Your task to perform on an android device: open app "Spotify" (install if not already installed) Image 0: 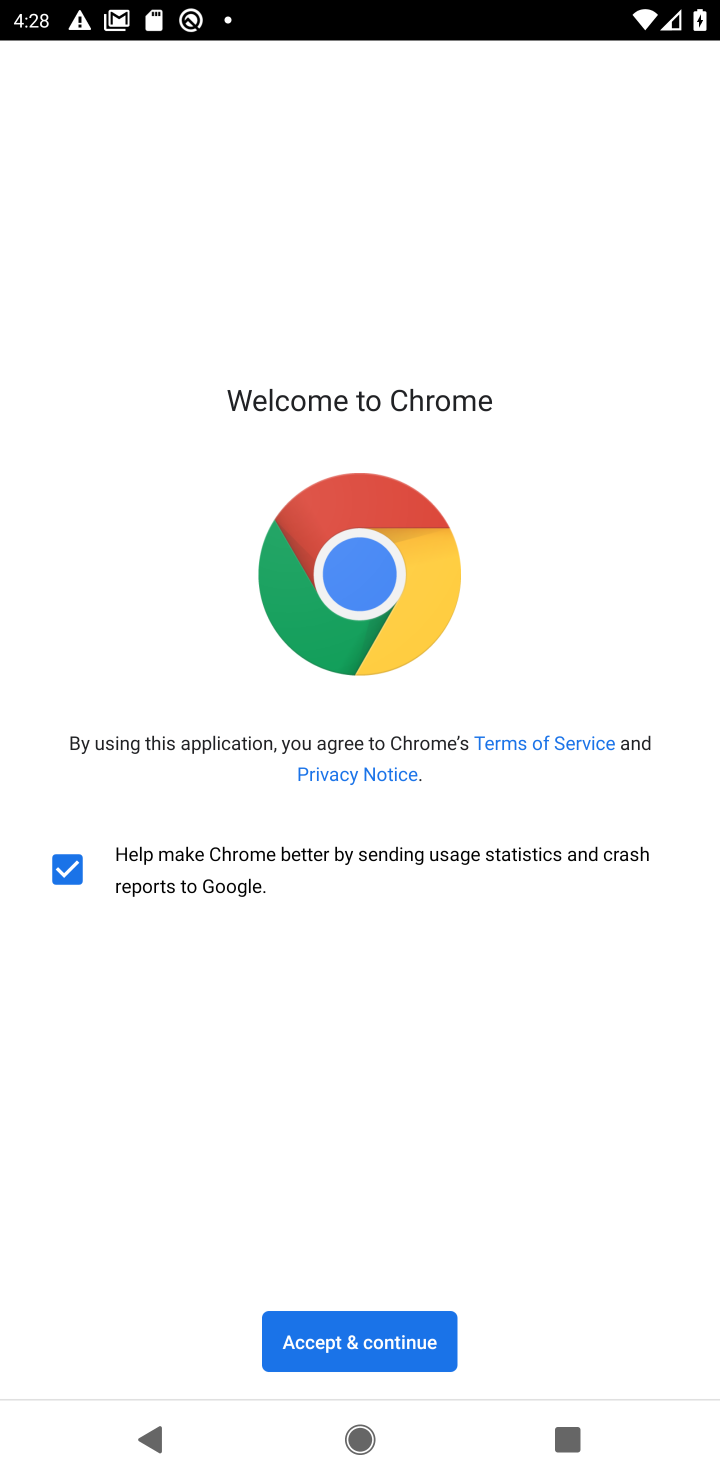
Step 0: press home button
Your task to perform on an android device: open app "Spotify" (install if not already installed) Image 1: 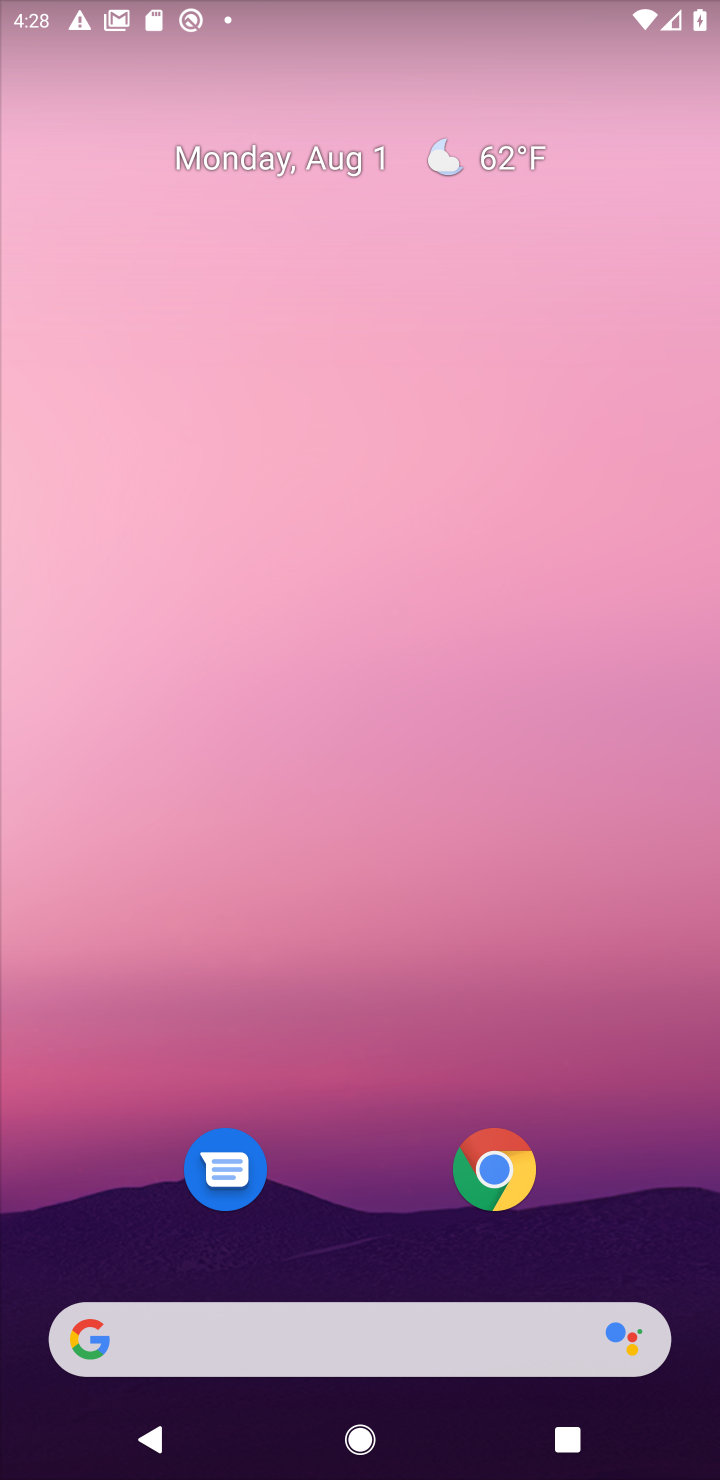
Step 1: drag from (513, 850) to (457, 131)
Your task to perform on an android device: open app "Spotify" (install if not already installed) Image 2: 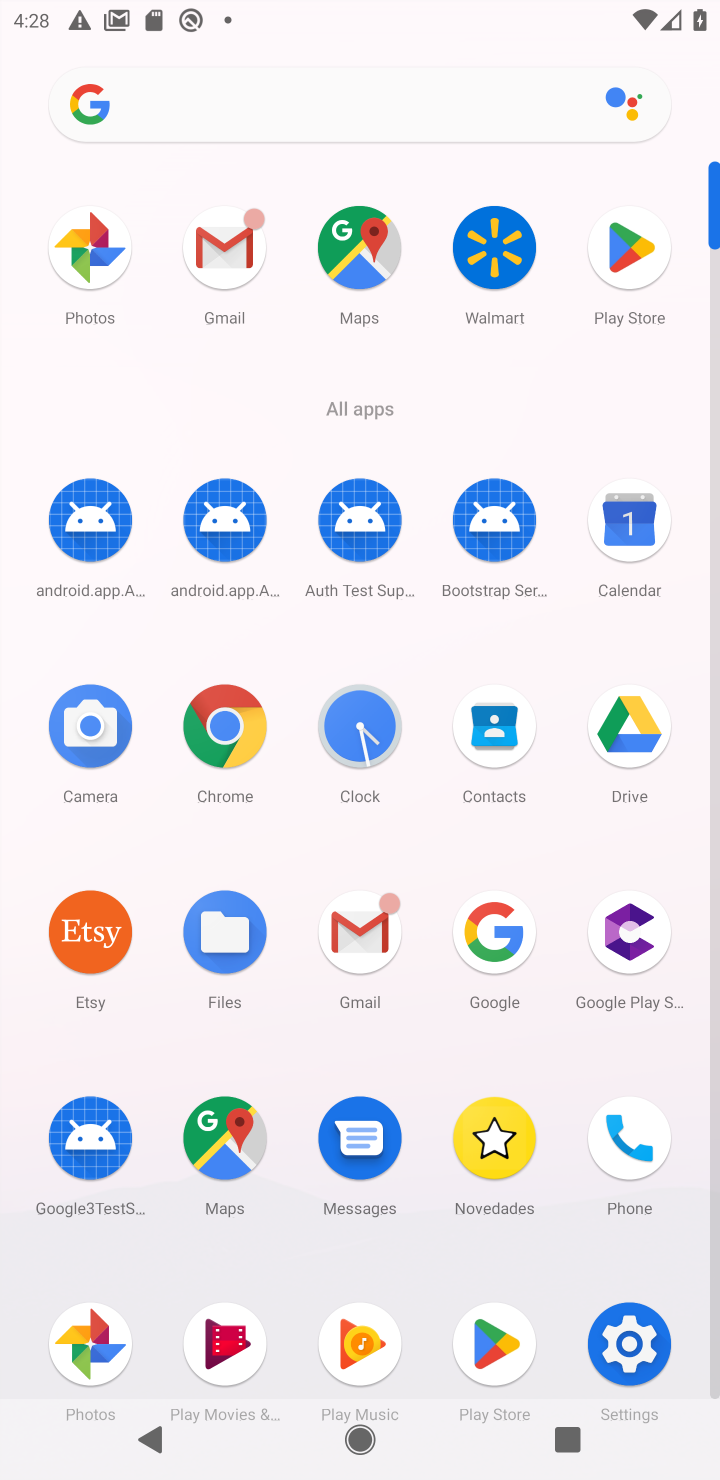
Step 2: click (629, 243)
Your task to perform on an android device: open app "Spotify" (install if not already installed) Image 3: 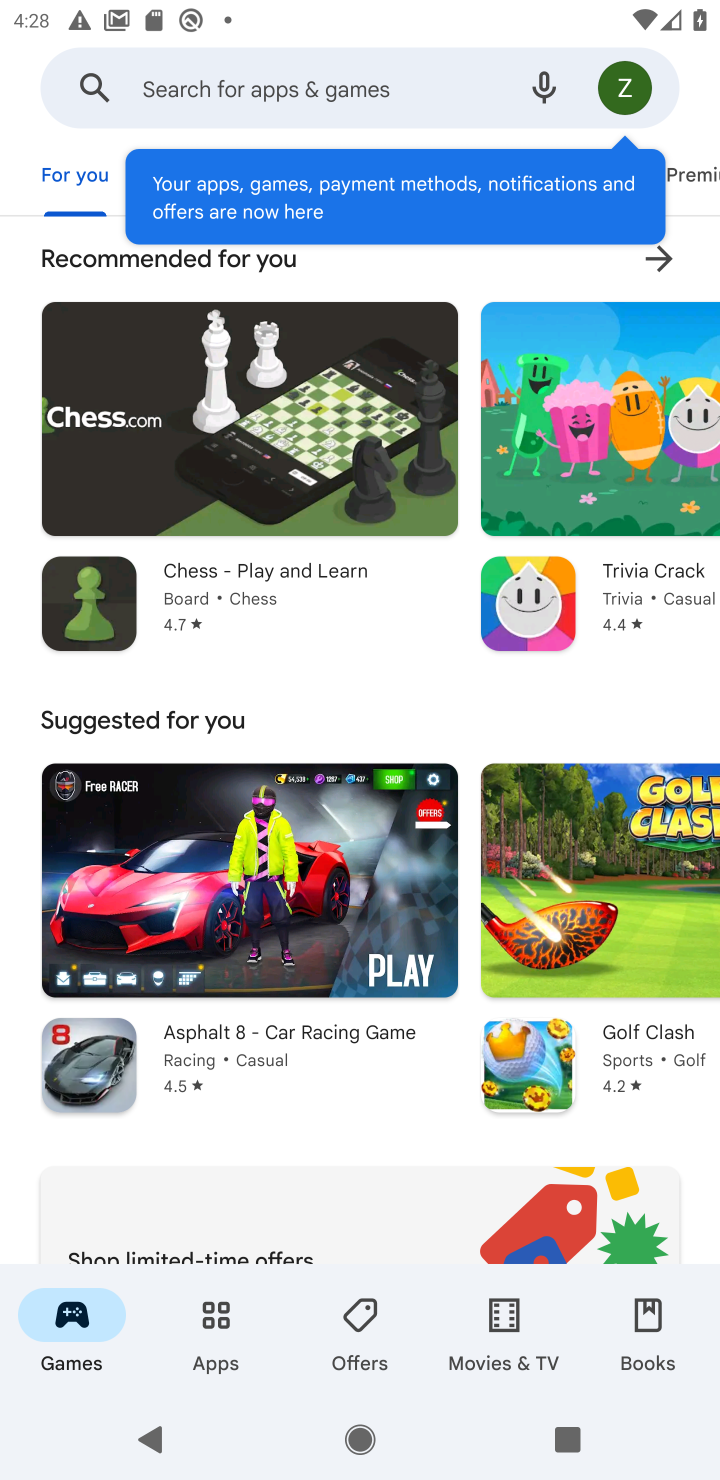
Step 3: click (398, 109)
Your task to perform on an android device: open app "Spotify" (install if not already installed) Image 4: 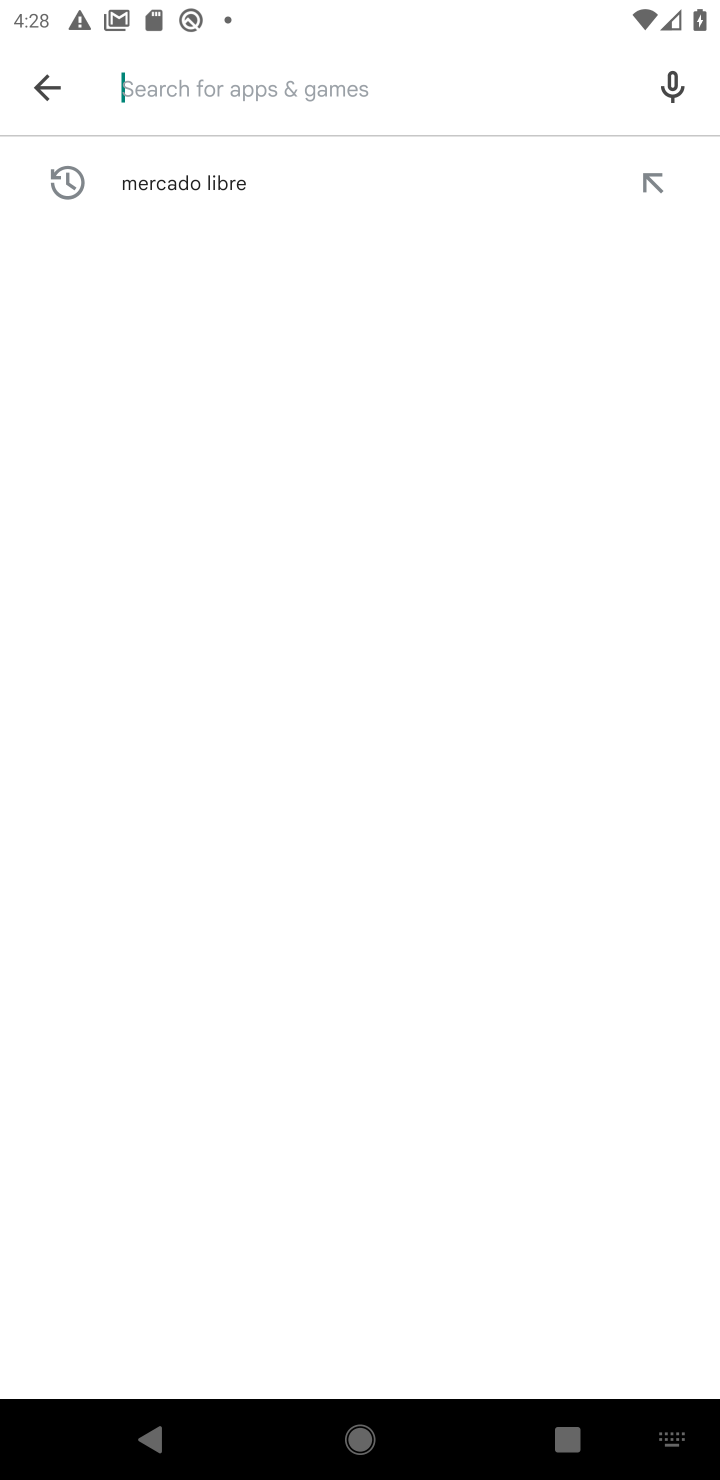
Step 4: type "spotify"
Your task to perform on an android device: open app "Spotify" (install if not already installed) Image 5: 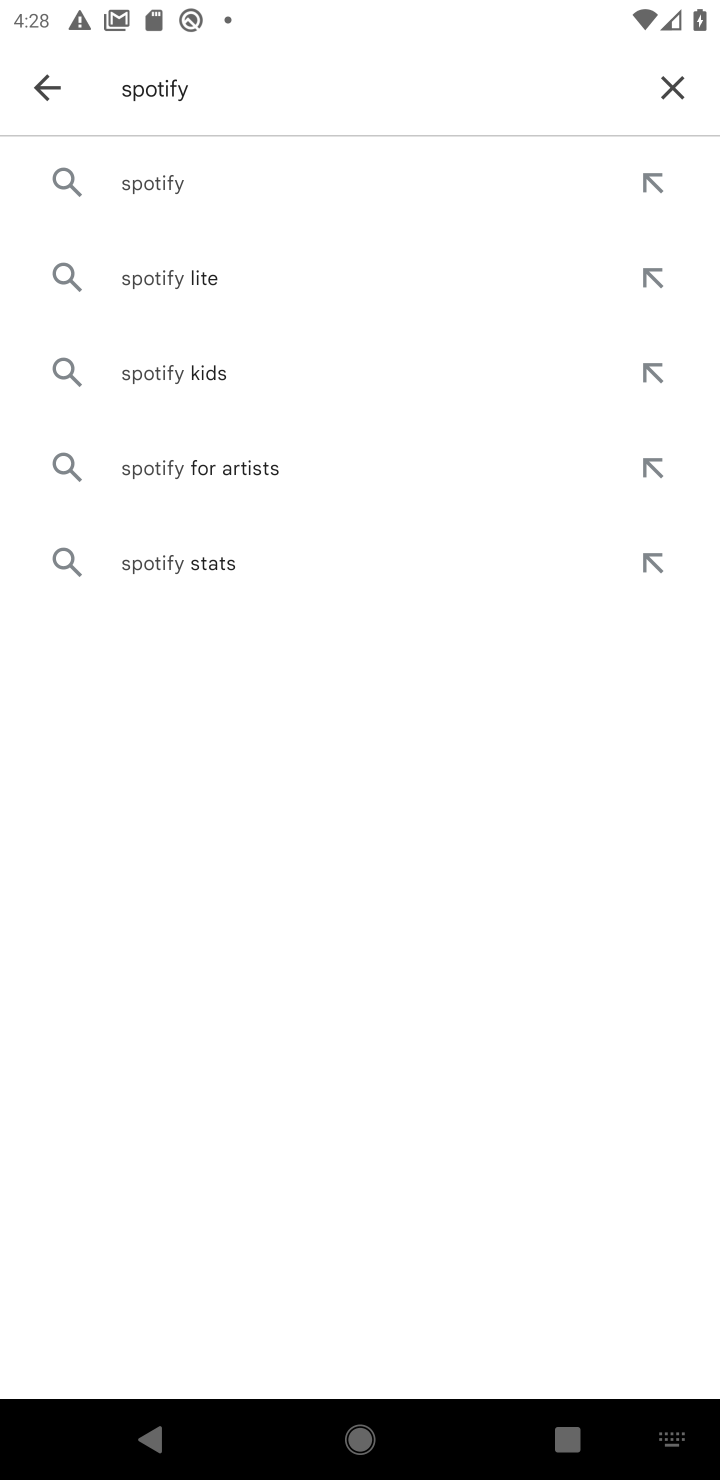
Step 5: click (158, 169)
Your task to perform on an android device: open app "Spotify" (install if not already installed) Image 6: 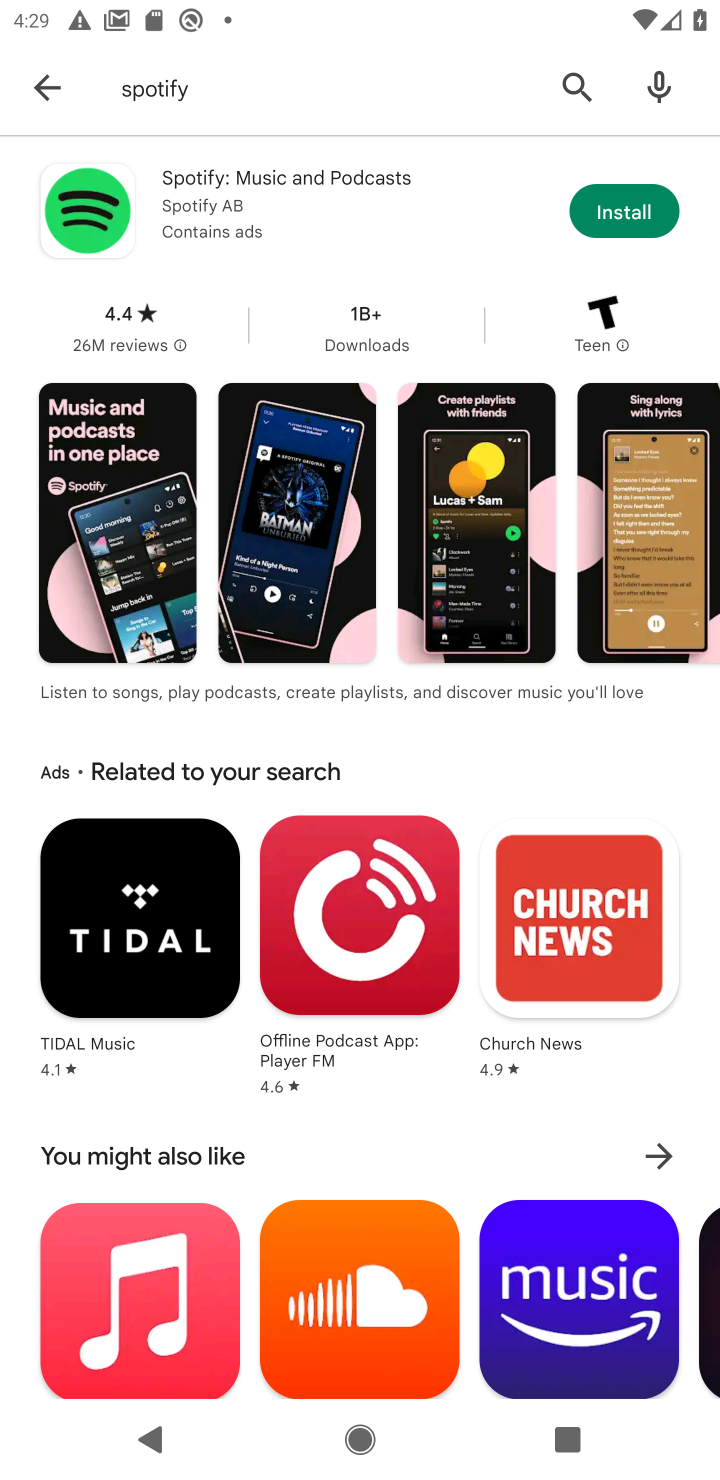
Step 6: click (608, 217)
Your task to perform on an android device: open app "Spotify" (install if not already installed) Image 7: 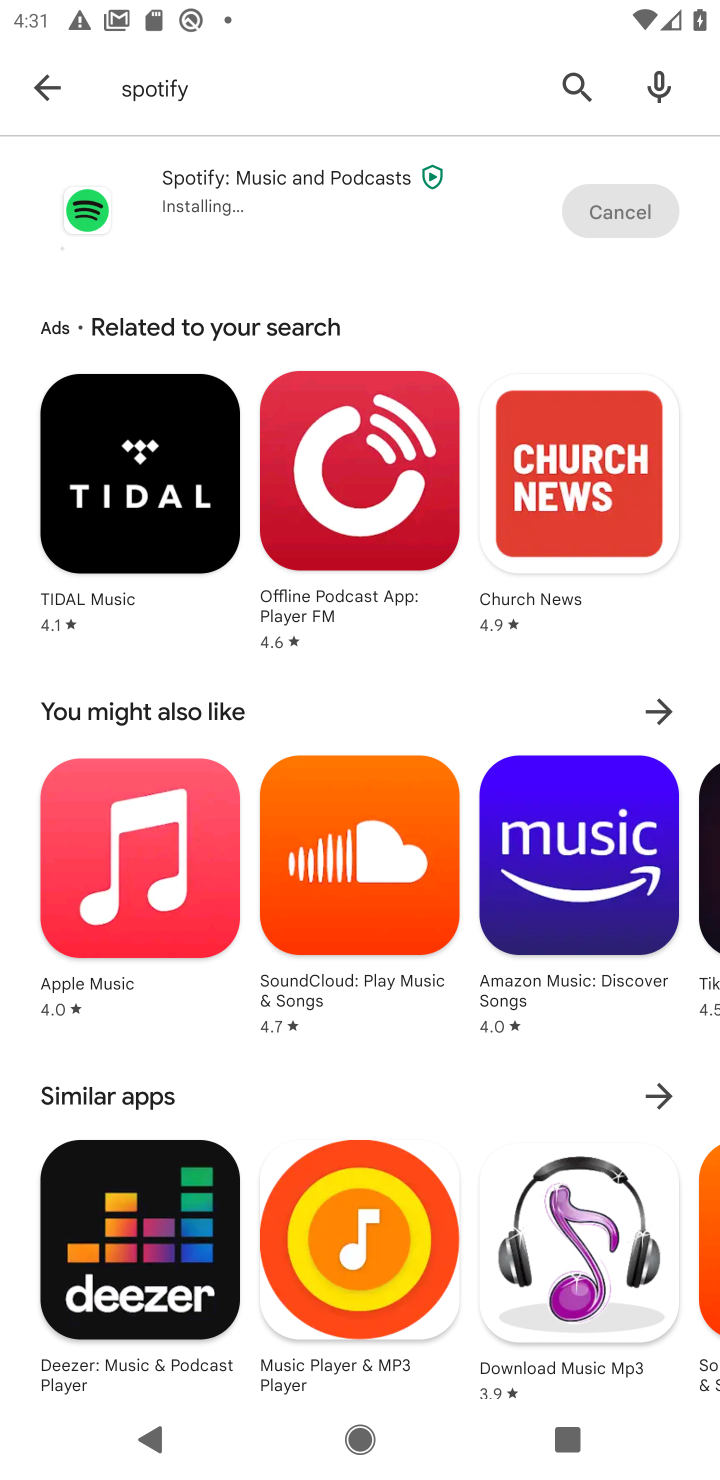
Step 7: drag from (442, 314) to (421, 99)
Your task to perform on an android device: open app "Spotify" (install if not already installed) Image 8: 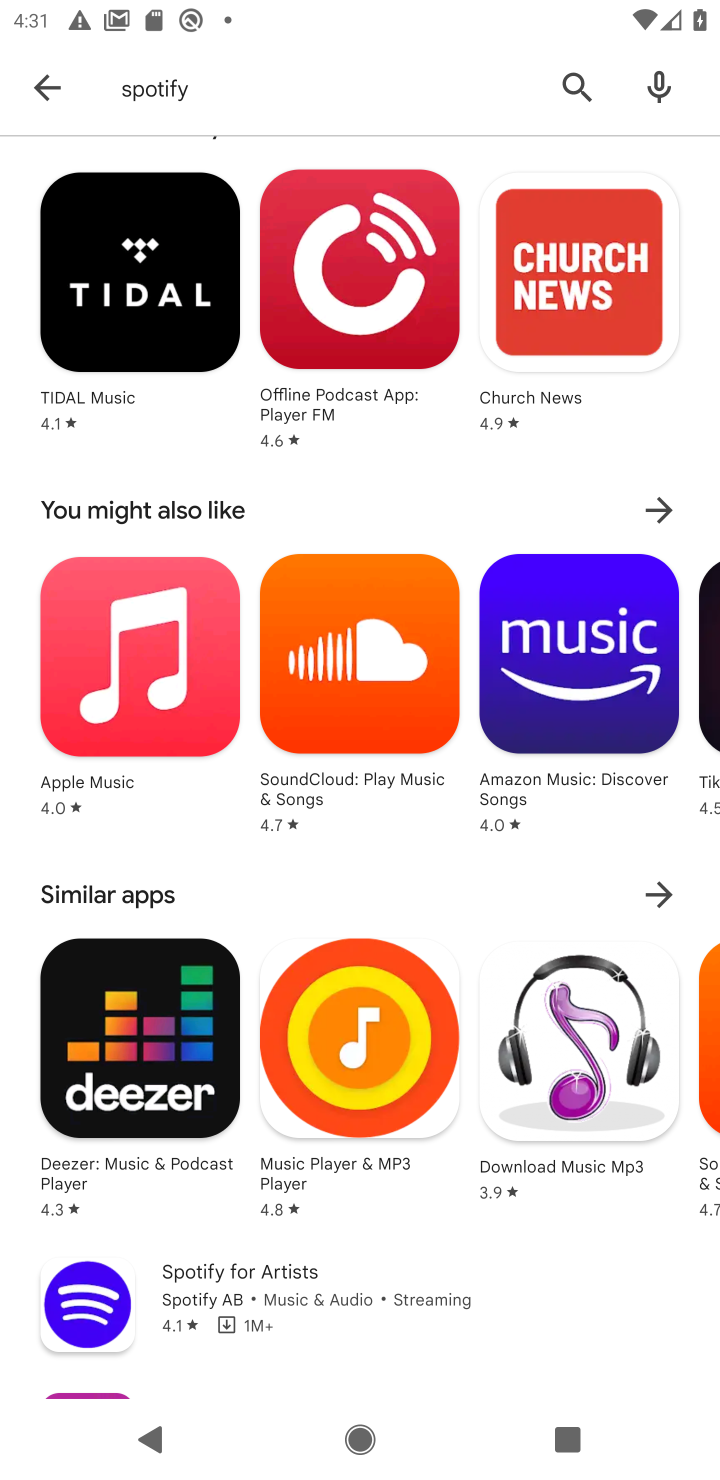
Step 8: drag from (484, 389) to (461, 994)
Your task to perform on an android device: open app "Spotify" (install if not already installed) Image 9: 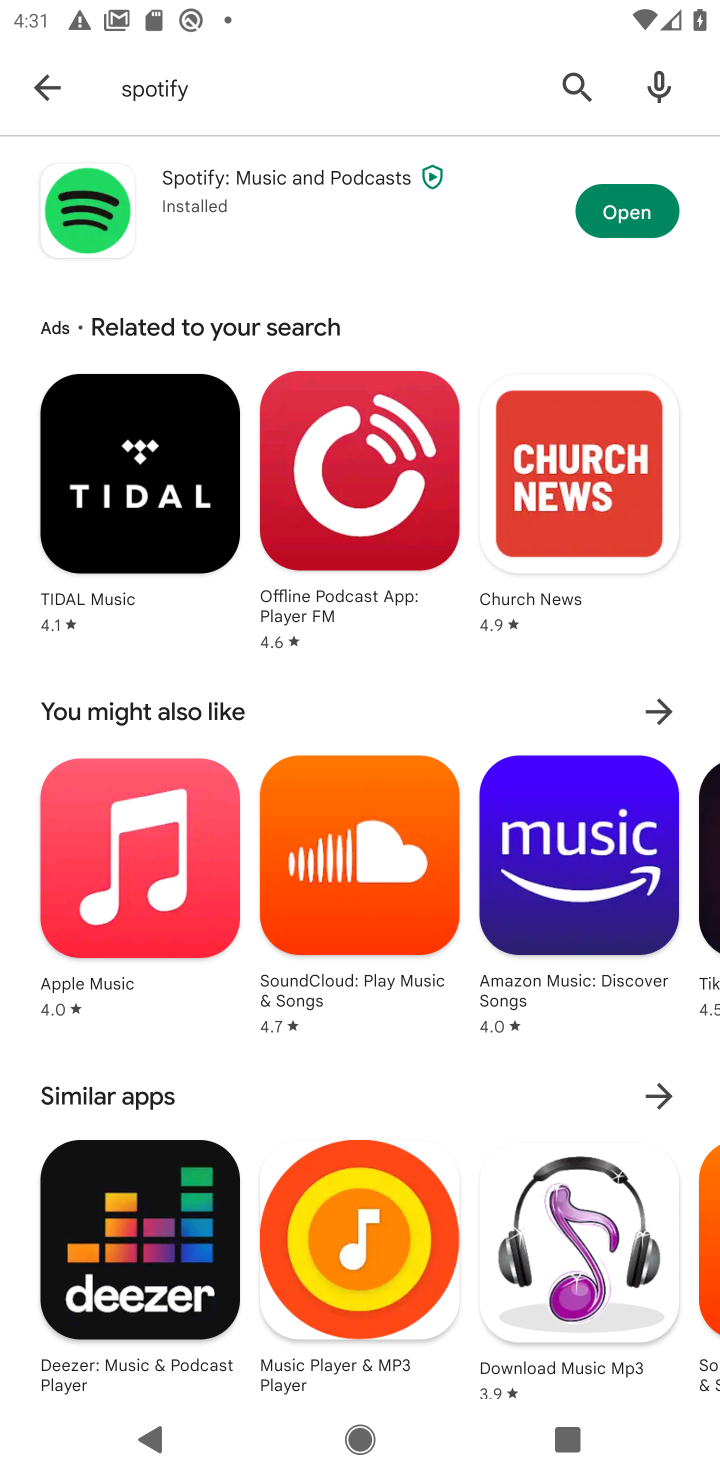
Step 9: click (631, 224)
Your task to perform on an android device: open app "Spotify" (install if not already installed) Image 10: 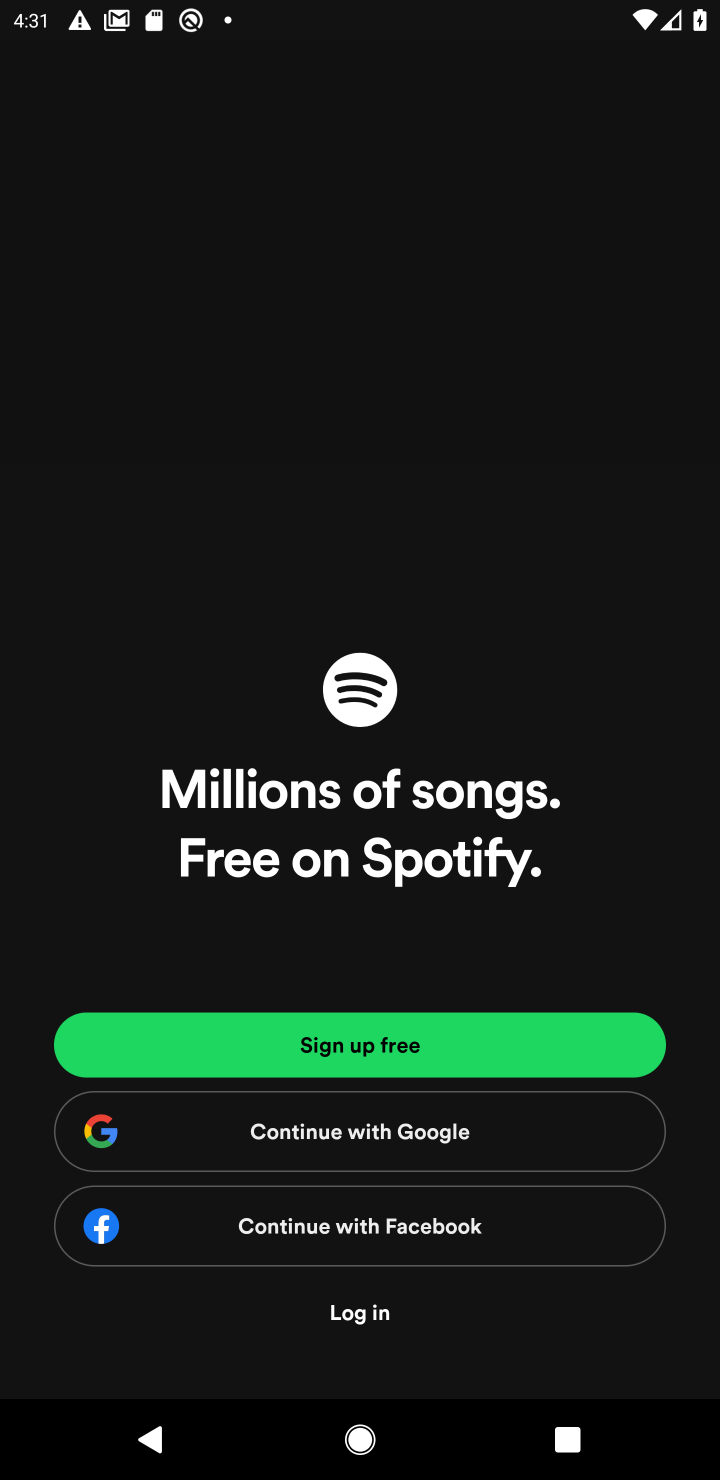
Step 10: task complete